Your task to perform on an android device: Open ESPN.com Image 0: 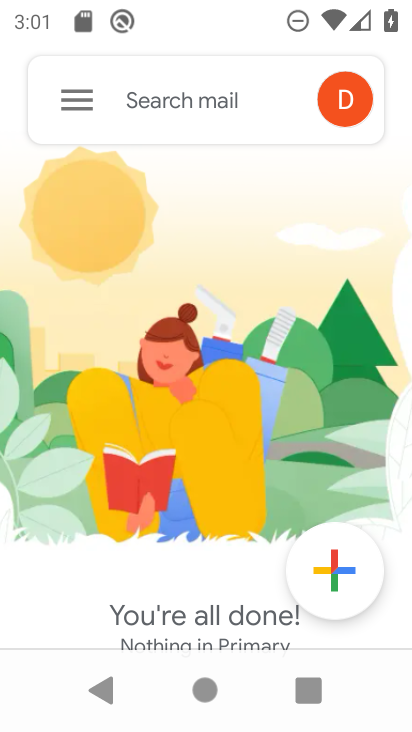
Step 0: press home button
Your task to perform on an android device: Open ESPN.com Image 1: 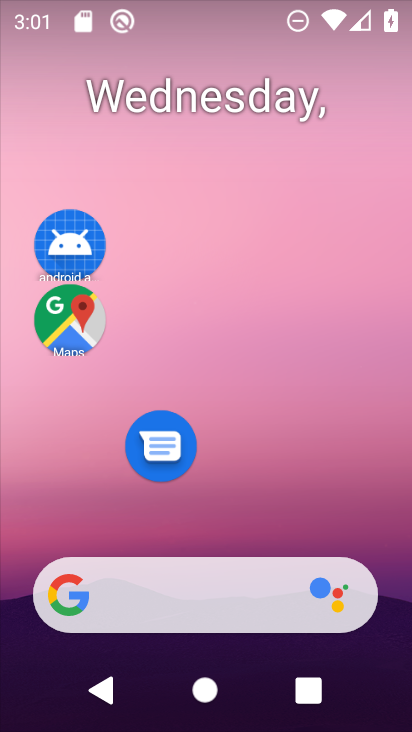
Step 1: drag from (226, 496) to (265, 224)
Your task to perform on an android device: Open ESPN.com Image 2: 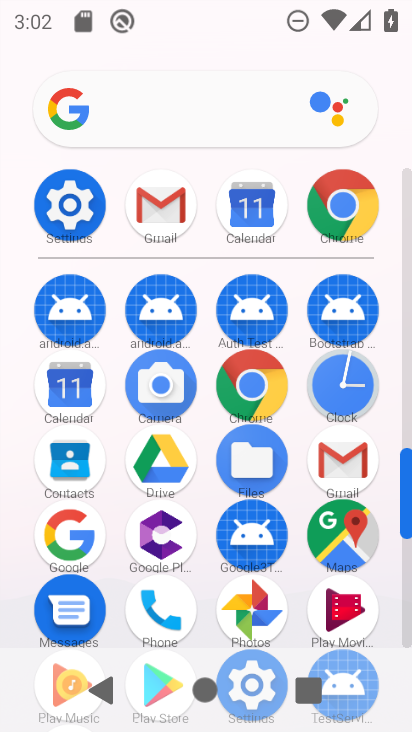
Step 2: click (308, 221)
Your task to perform on an android device: Open ESPN.com Image 3: 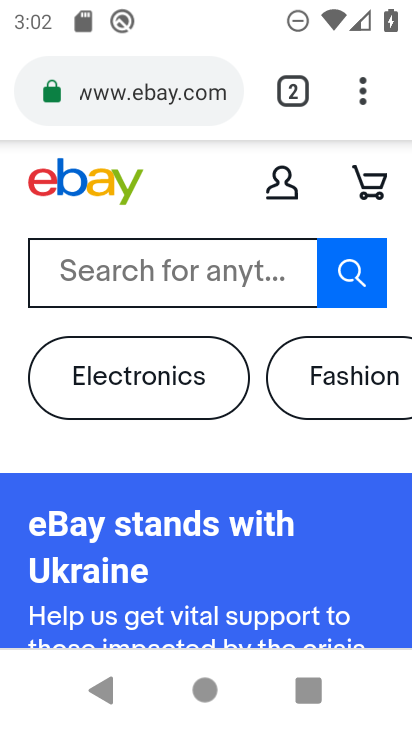
Step 3: click (177, 101)
Your task to perform on an android device: Open ESPN.com Image 4: 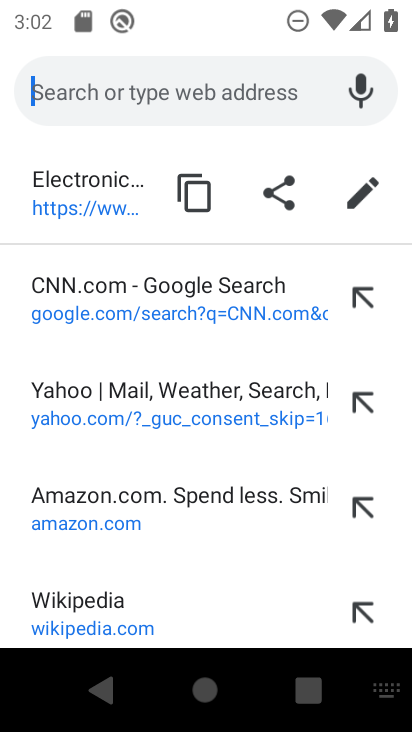
Step 4: type "espn.com"
Your task to perform on an android device: Open ESPN.com Image 5: 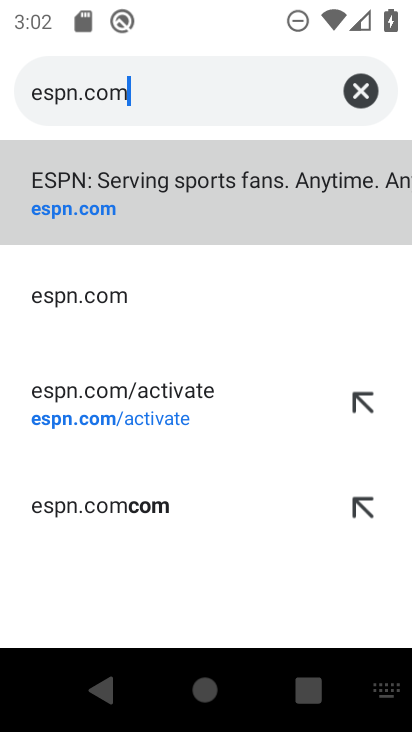
Step 5: click (151, 208)
Your task to perform on an android device: Open ESPN.com Image 6: 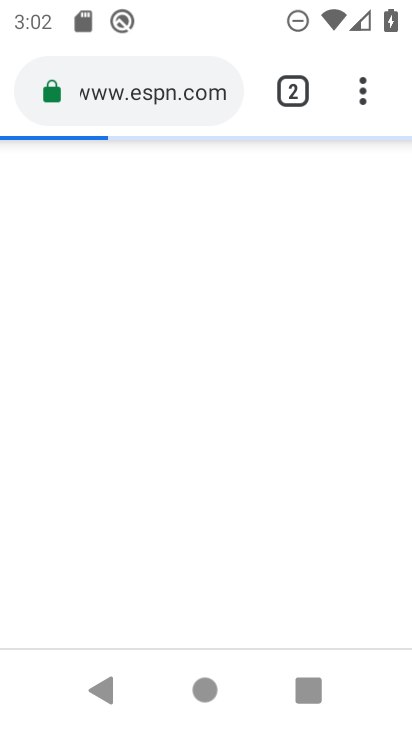
Step 6: task complete